Your task to perform on an android device: Open settings on Google Maps Image 0: 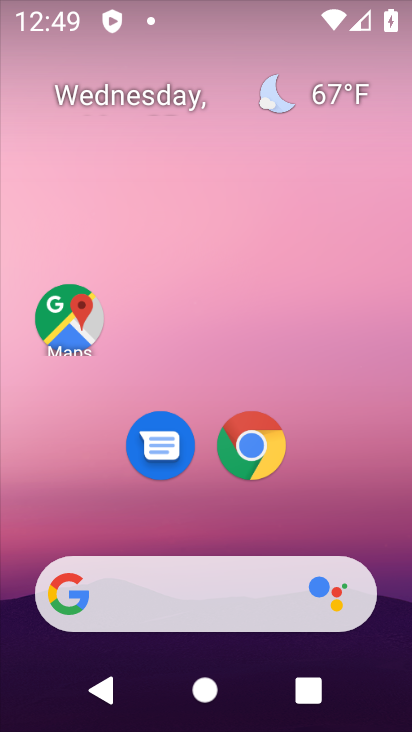
Step 0: click (66, 336)
Your task to perform on an android device: Open settings on Google Maps Image 1: 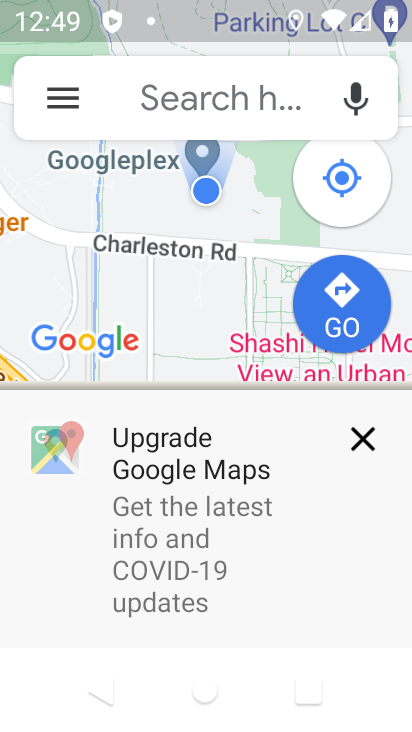
Step 1: click (63, 119)
Your task to perform on an android device: Open settings on Google Maps Image 2: 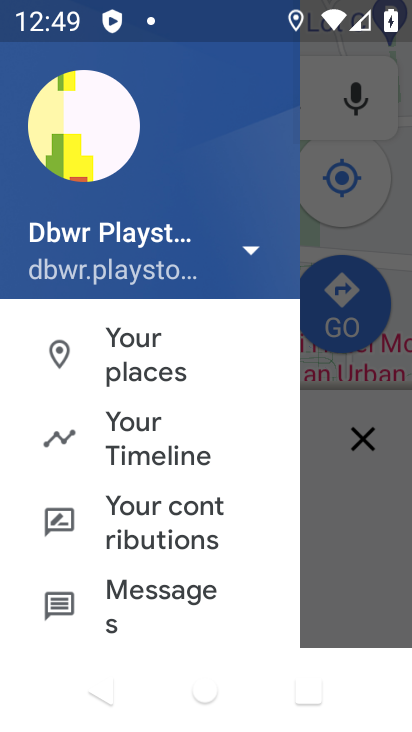
Step 2: drag from (141, 607) to (153, 264)
Your task to perform on an android device: Open settings on Google Maps Image 3: 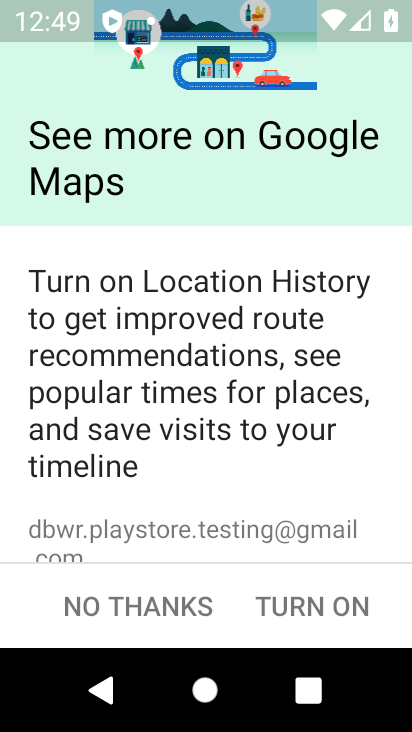
Step 3: click (172, 608)
Your task to perform on an android device: Open settings on Google Maps Image 4: 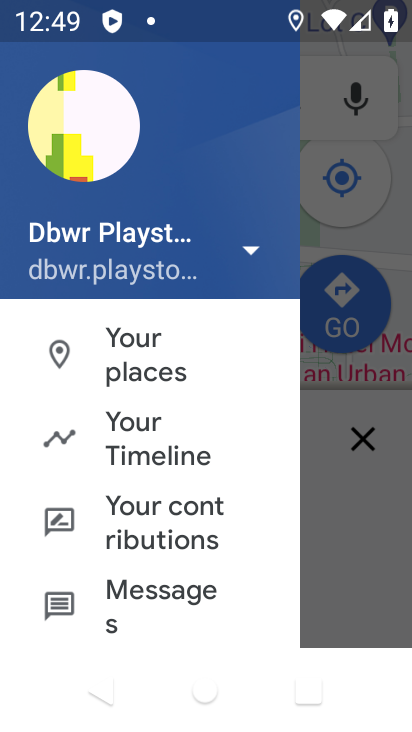
Step 4: drag from (176, 618) to (169, 122)
Your task to perform on an android device: Open settings on Google Maps Image 5: 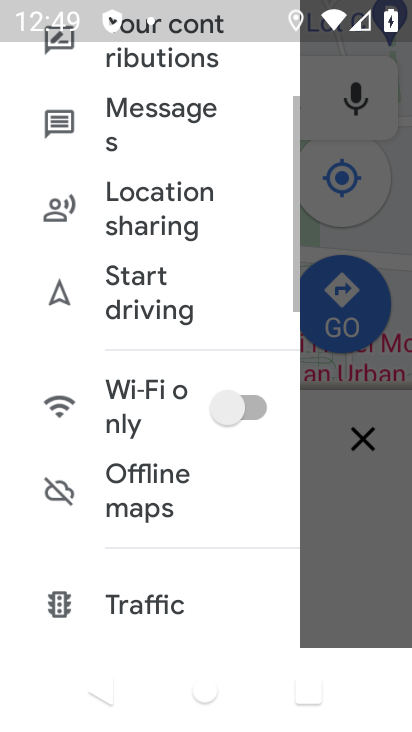
Step 5: drag from (148, 583) to (148, 187)
Your task to perform on an android device: Open settings on Google Maps Image 6: 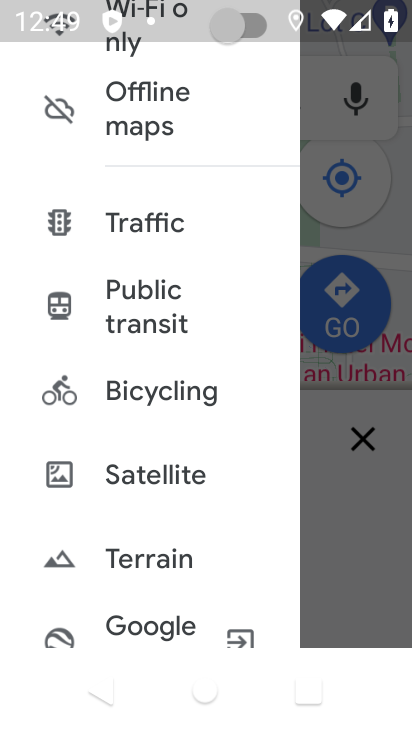
Step 6: drag from (170, 586) to (155, 98)
Your task to perform on an android device: Open settings on Google Maps Image 7: 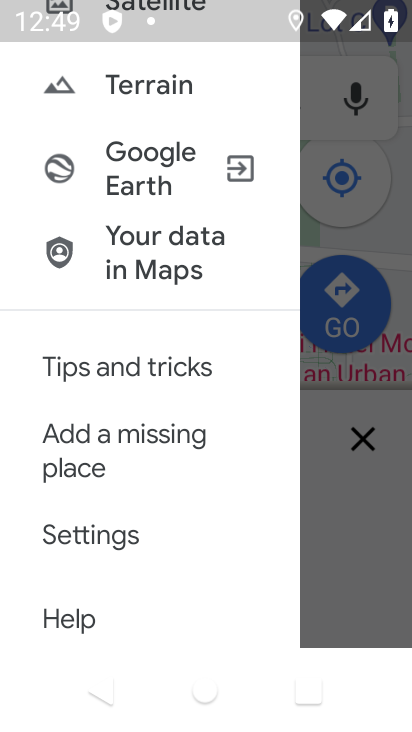
Step 7: click (118, 526)
Your task to perform on an android device: Open settings on Google Maps Image 8: 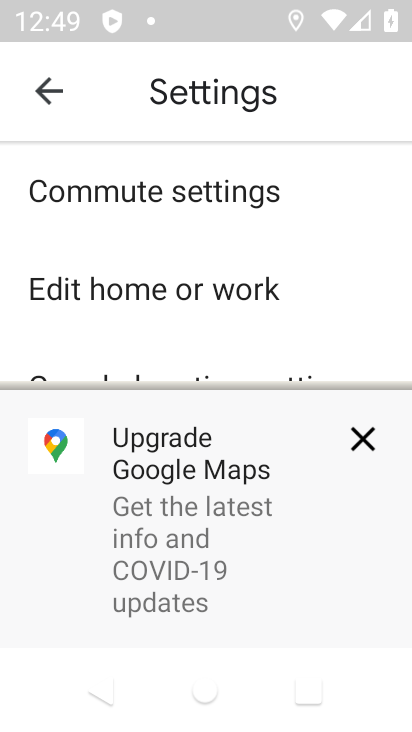
Step 8: click (363, 444)
Your task to perform on an android device: Open settings on Google Maps Image 9: 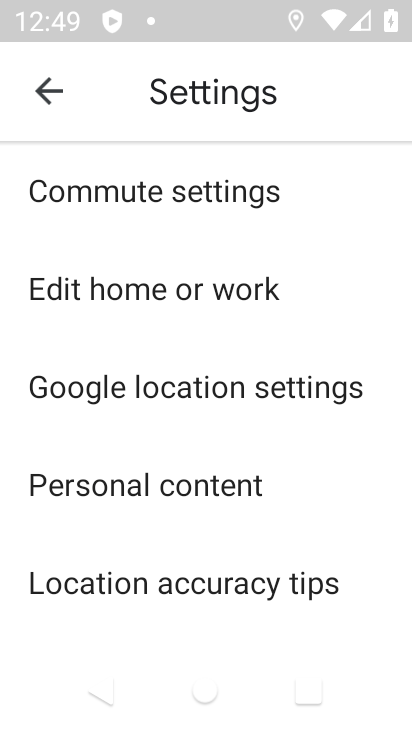
Step 9: task complete